Your task to perform on an android device: install app "Expedia: Hotels, Flights & Car" Image 0: 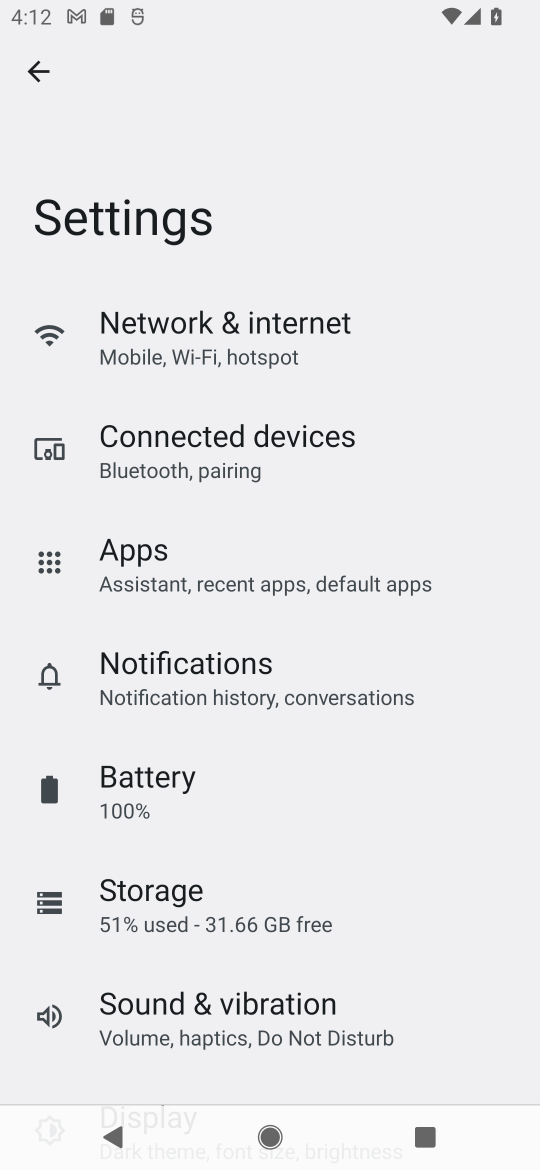
Step 0: press home button
Your task to perform on an android device: install app "Expedia: Hotels, Flights & Car" Image 1: 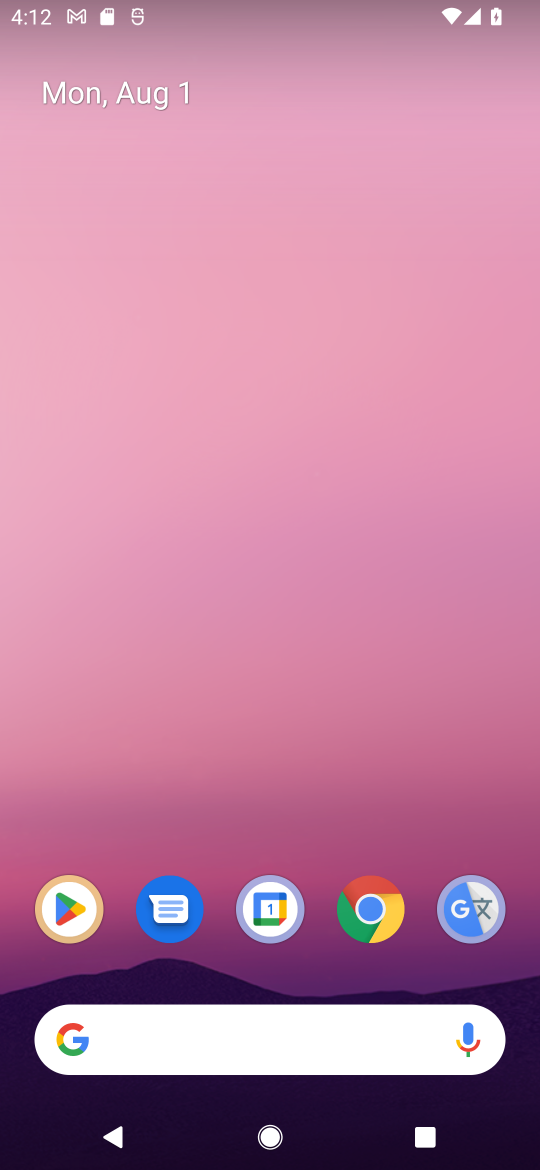
Step 1: click (75, 924)
Your task to perform on an android device: install app "Expedia: Hotels, Flights & Car" Image 2: 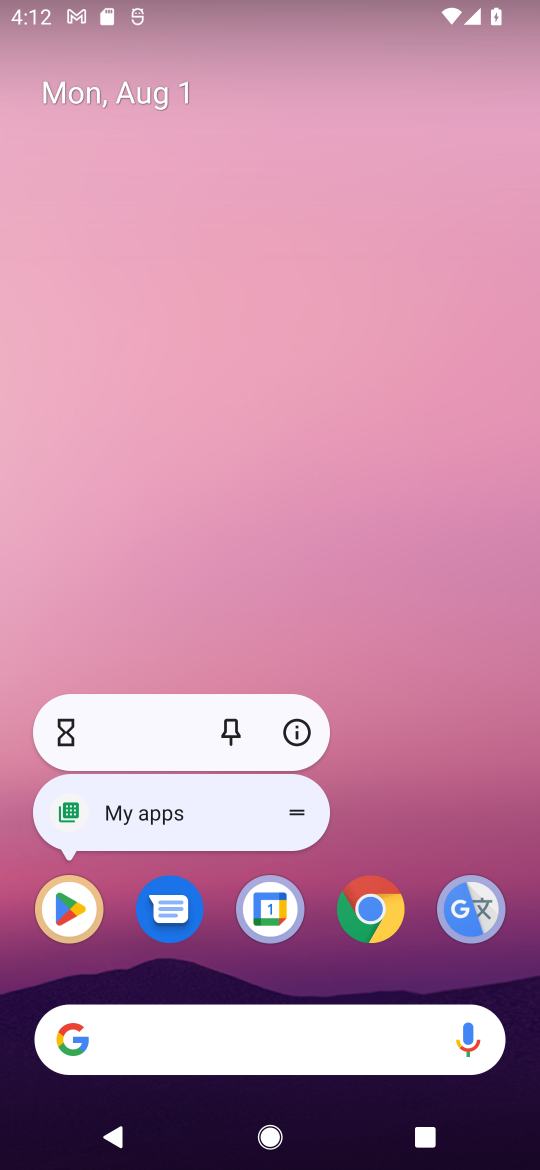
Step 2: click (62, 878)
Your task to perform on an android device: install app "Expedia: Hotels, Flights & Car" Image 3: 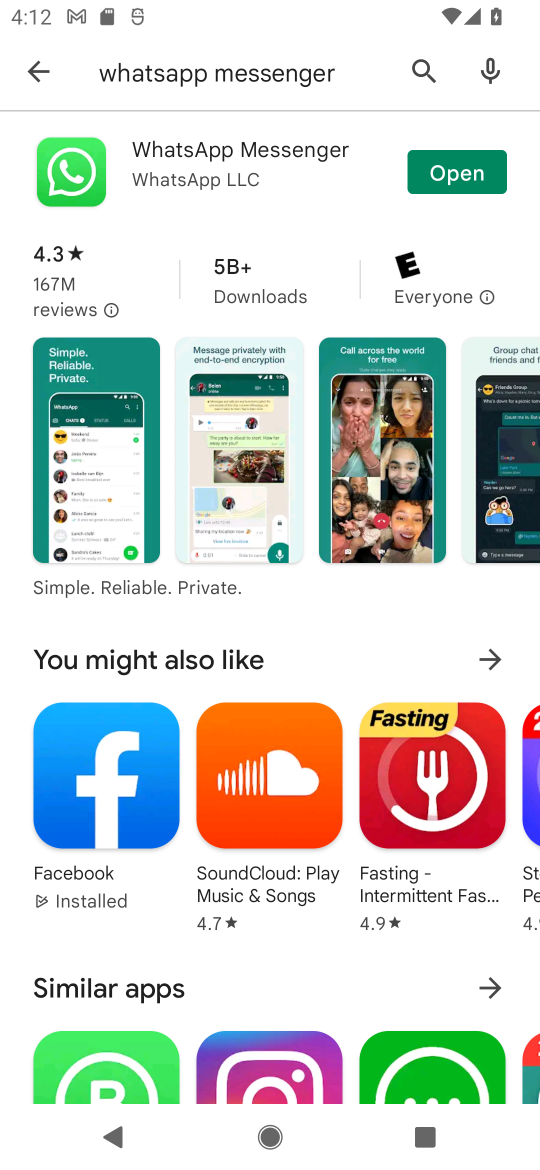
Step 3: click (208, 94)
Your task to perform on an android device: install app "Expedia: Hotels, Flights & Car" Image 4: 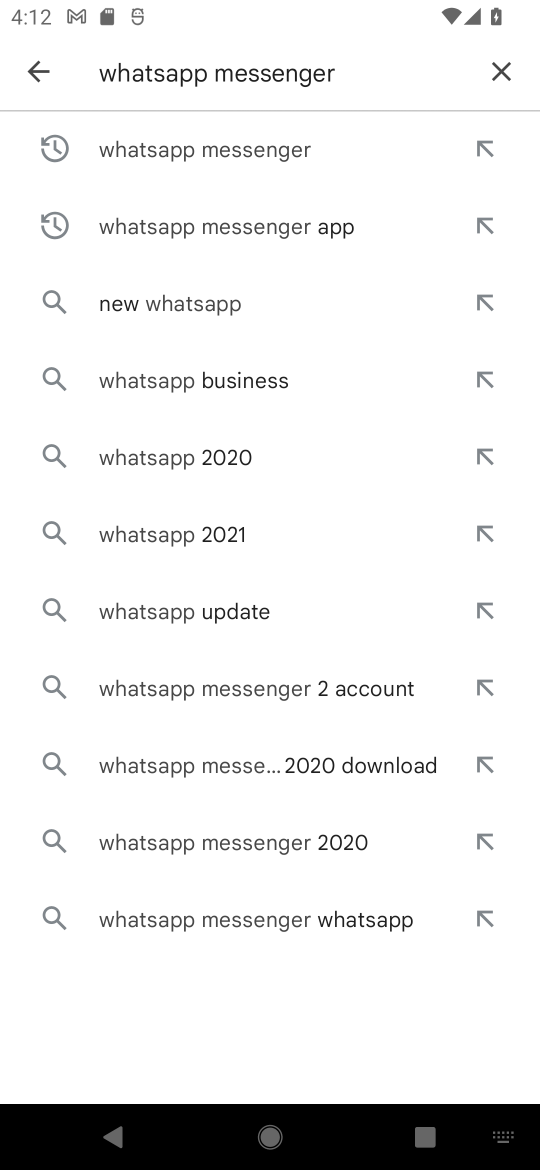
Step 4: click (507, 73)
Your task to perform on an android device: install app "Expedia: Hotels, Flights & Car" Image 5: 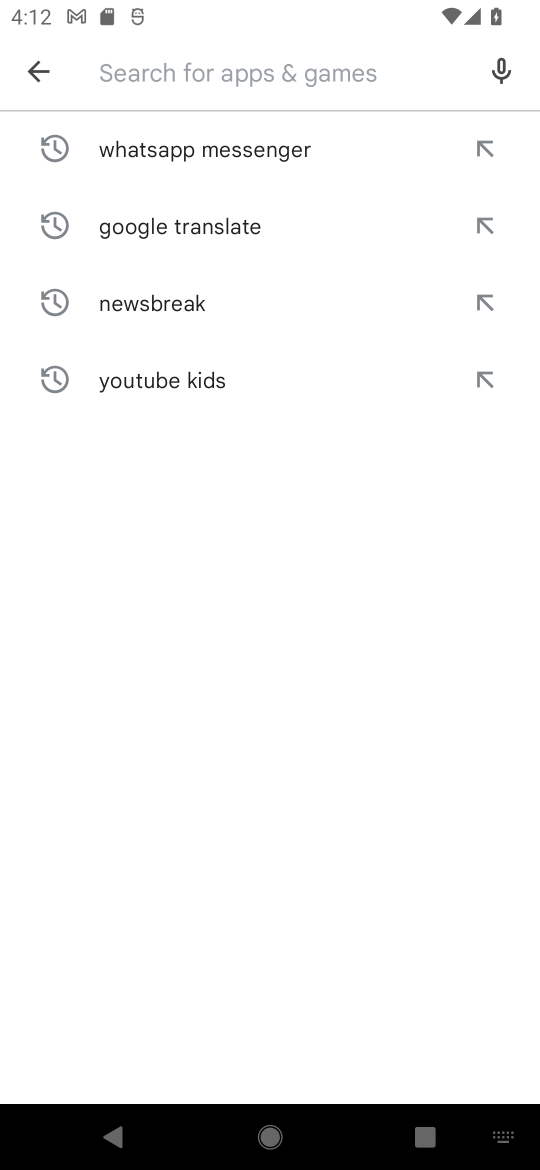
Step 5: type "expedia"
Your task to perform on an android device: install app "Expedia: Hotels, Flights & Car" Image 6: 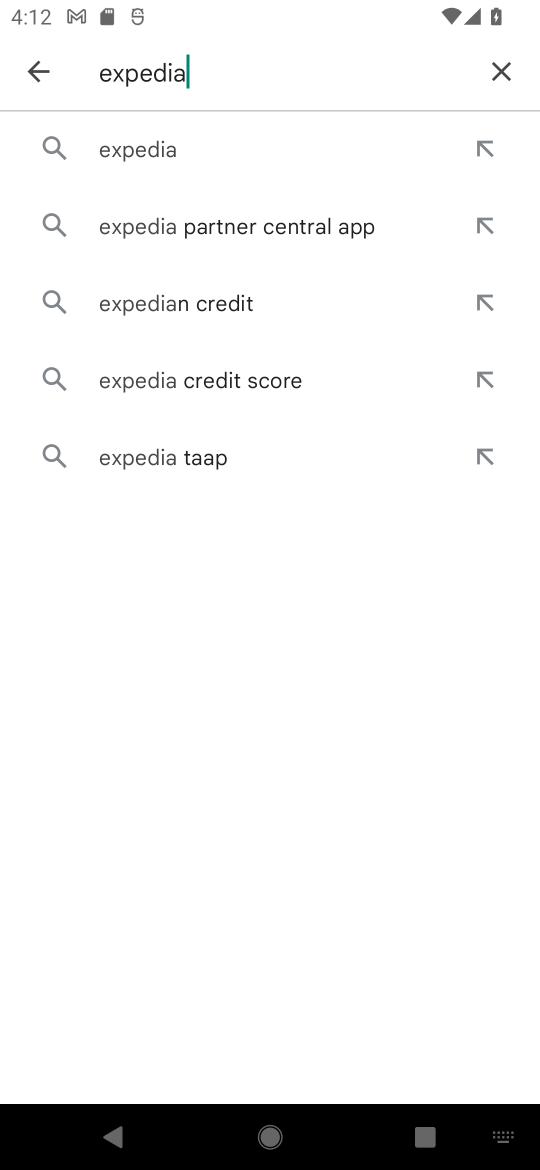
Step 6: click (165, 134)
Your task to perform on an android device: install app "Expedia: Hotels, Flights & Car" Image 7: 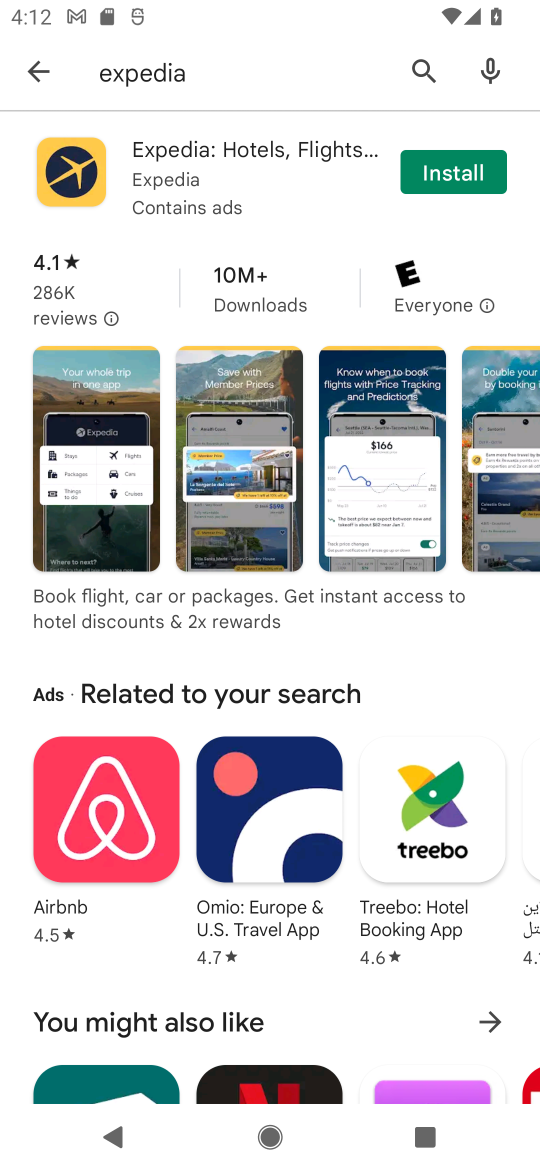
Step 7: click (435, 166)
Your task to perform on an android device: install app "Expedia: Hotels, Flights & Car" Image 8: 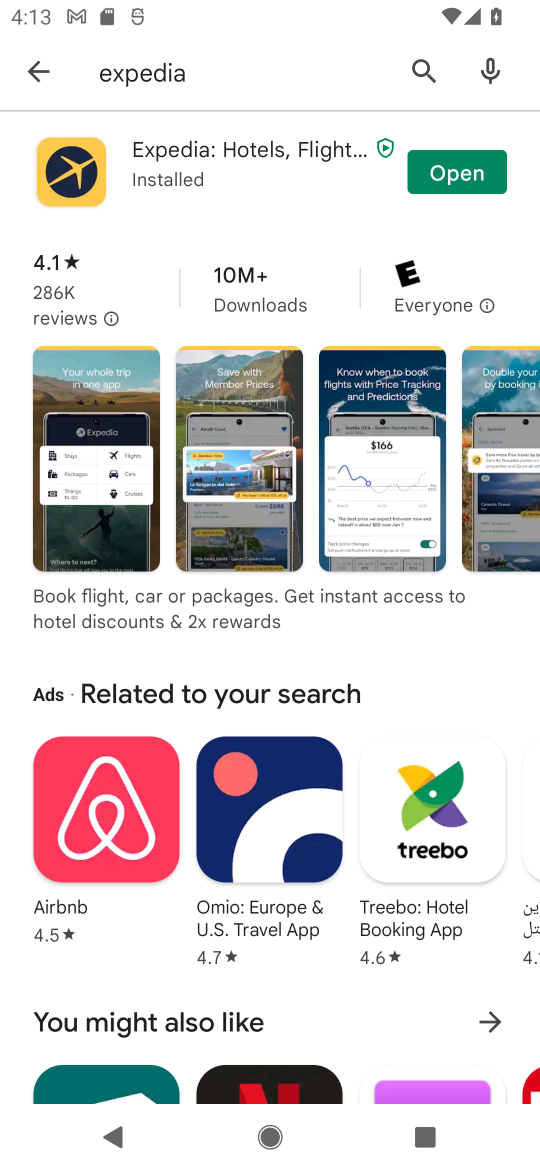
Step 8: task complete